Your task to perform on an android device: change the clock style Image 0: 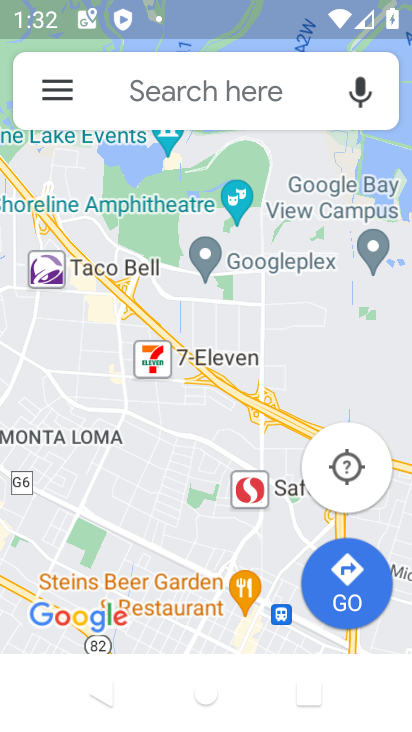
Step 0: press home button
Your task to perform on an android device: change the clock style Image 1: 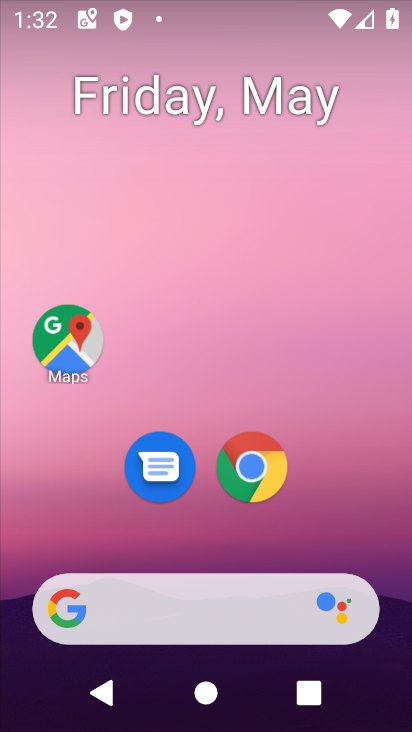
Step 1: drag from (314, 504) to (362, 163)
Your task to perform on an android device: change the clock style Image 2: 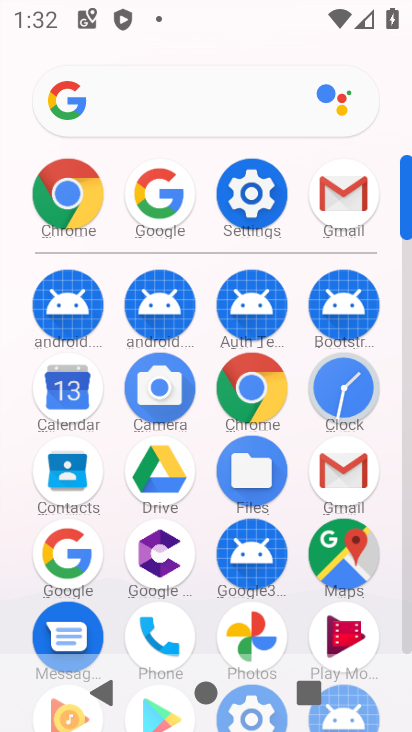
Step 2: click (339, 395)
Your task to perform on an android device: change the clock style Image 3: 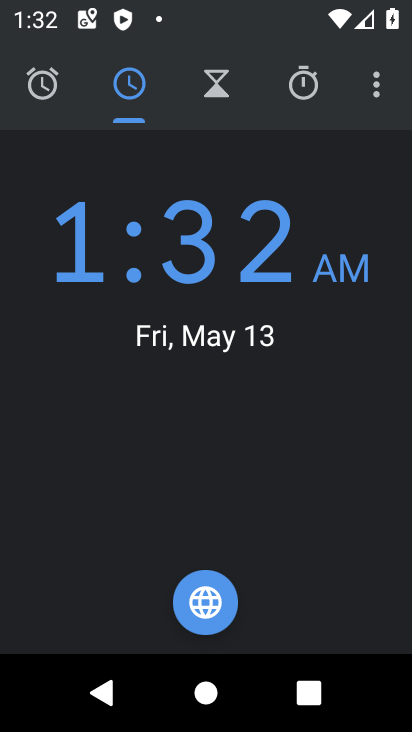
Step 3: click (377, 82)
Your task to perform on an android device: change the clock style Image 4: 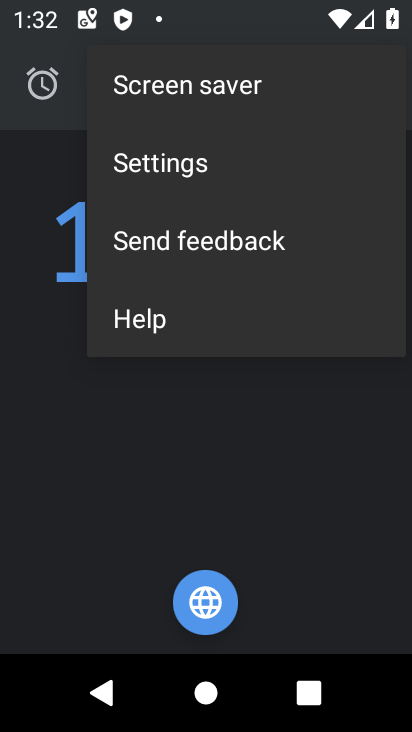
Step 4: click (172, 172)
Your task to perform on an android device: change the clock style Image 5: 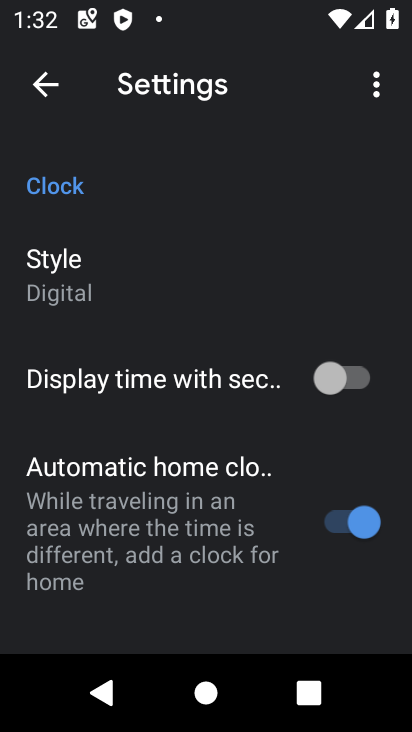
Step 5: click (74, 268)
Your task to perform on an android device: change the clock style Image 6: 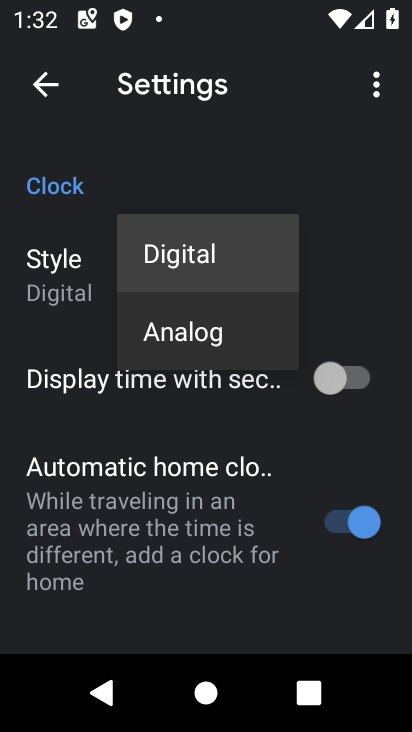
Step 6: click (210, 321)
Your task to perform on an android device: change the clock style Image 7: 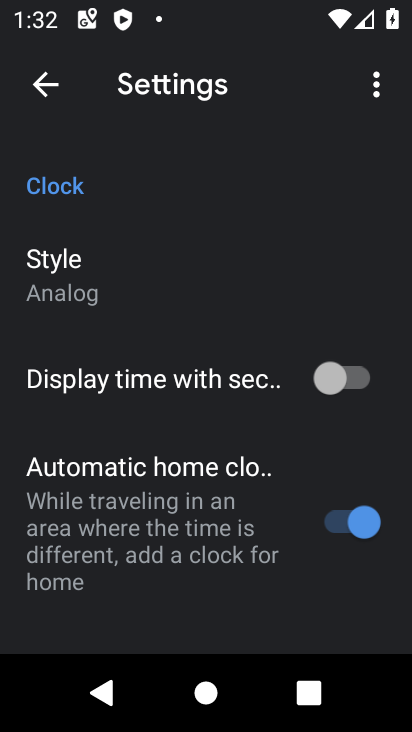
Step 7: task complete